Your task to perform on an android device: change alarm snooze length Image 0: 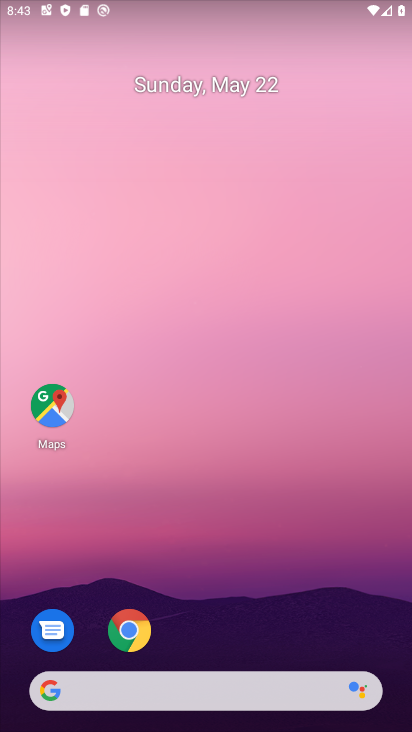
Step 0: drag from (253, 627) to (265, 216)
Your task to perform on an android device: change alarm snooze length Image 1: 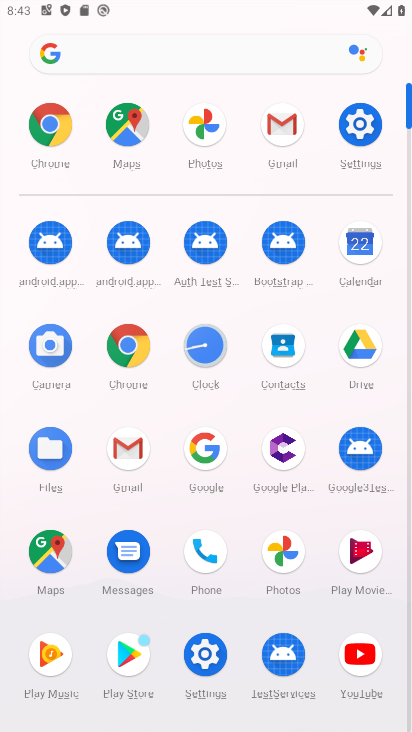
Step 1: click (375, 153)
Your task to perform on an android device: change alarm snooze length Image 2: 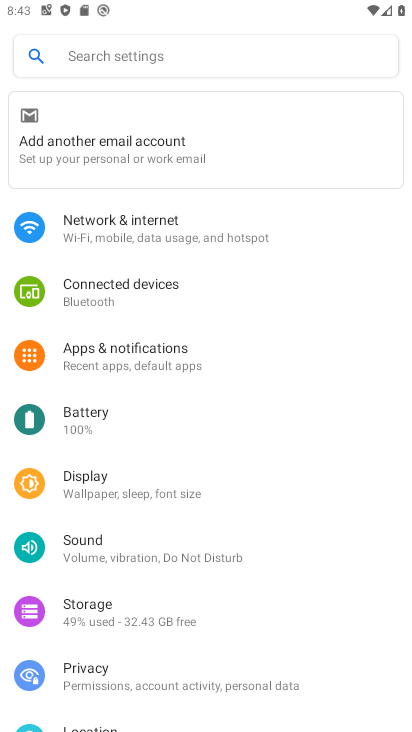
Step 2: press home button
Your task to perform on an android device: change alarm snooze length Image 3: 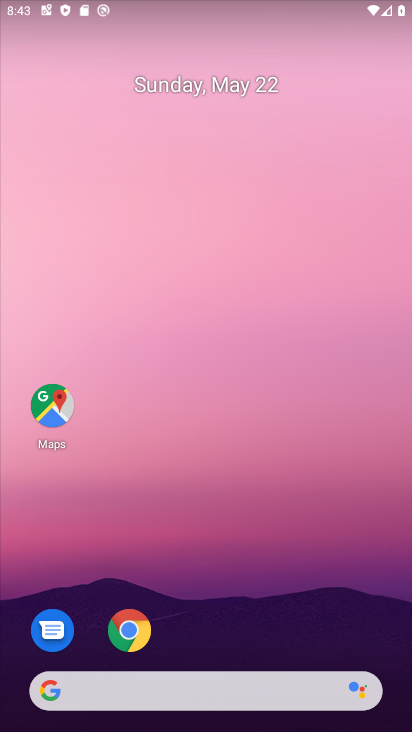
Step 3: drag from (227, 656) to (230, 80)
Your task to perform on an android device: change alarm snooze length Image 4: 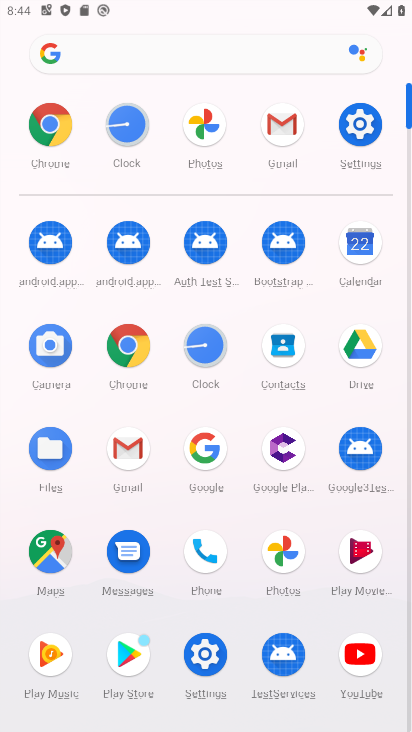
Step 4: click (213, 368)
Your task to perform on an android device: change alarm snooze length Image 5: 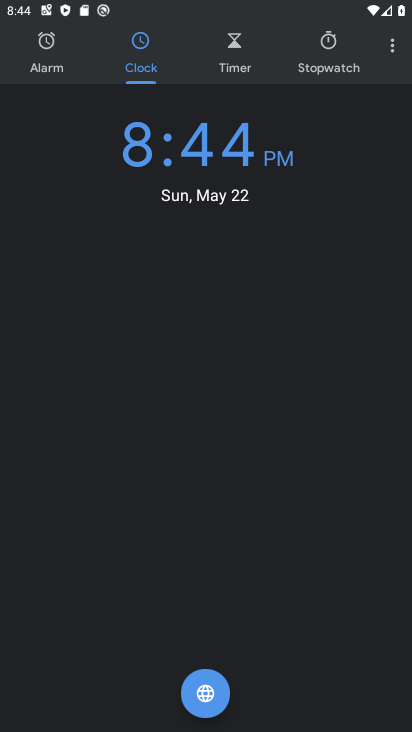
Step 5: click (391, 43)
Your task to perform on an android device: change alarm snooze length Image 6: 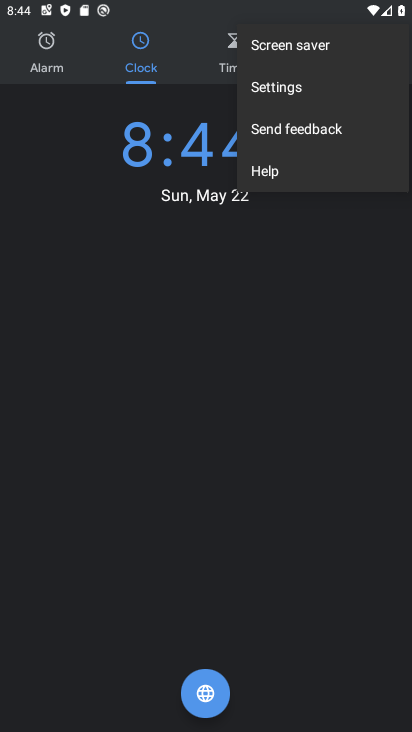
Step 6: click (300, 97)
Your task to perform on an android device: change alarm snooze length Image 7: 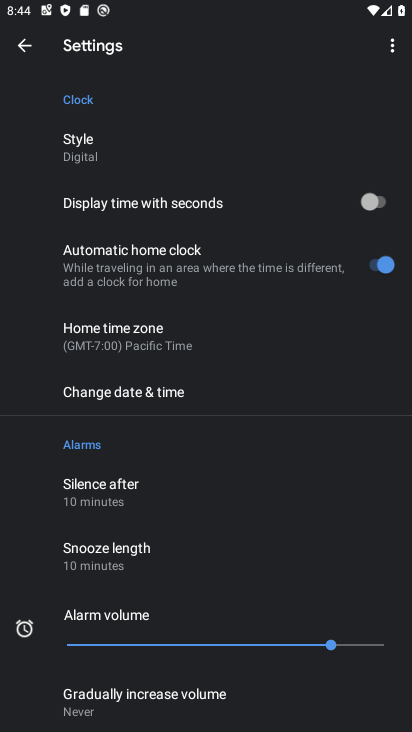
Step 7: drag from (163, 517) to (200, 269)
Your task to perform on an android device: change alarm snooze length Image 8: 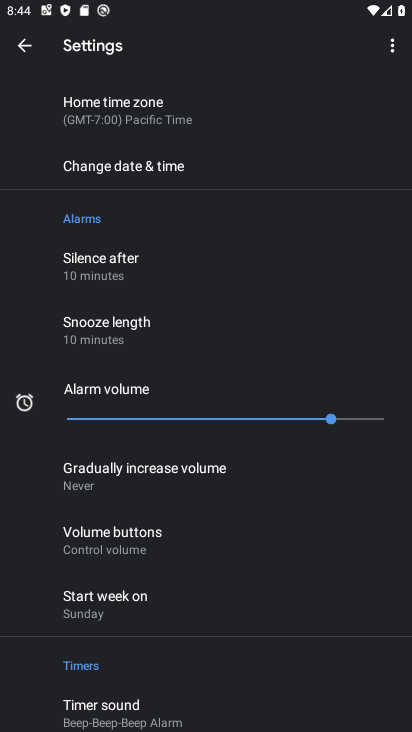
Step 8: drag from (136, 637) to (153, 537)
Your task to perform on an android device: change alarm snooze length Image 9: 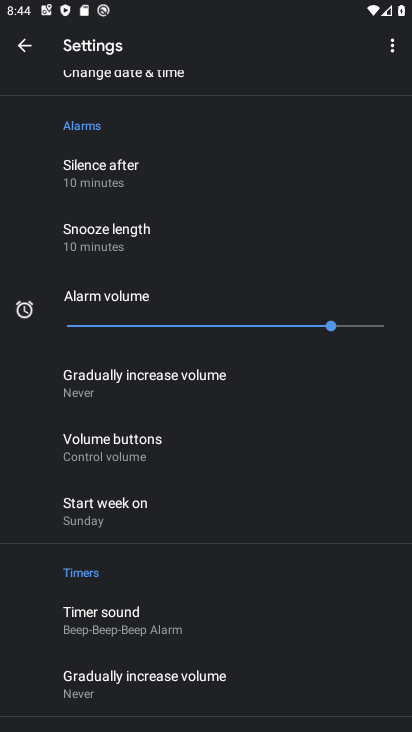
Step 9: click (165, 254)
Your task to perform on an android device: change alarm snooze length Image 10: 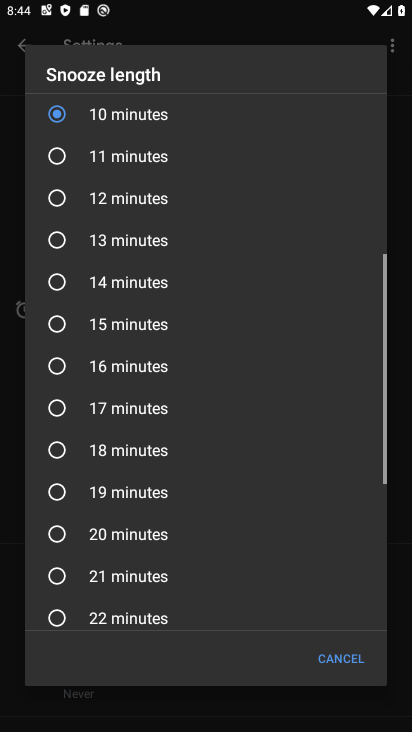
Step 10: click (135, 223)
Your task to perform on an android device: change alarm snooze length Image 11: 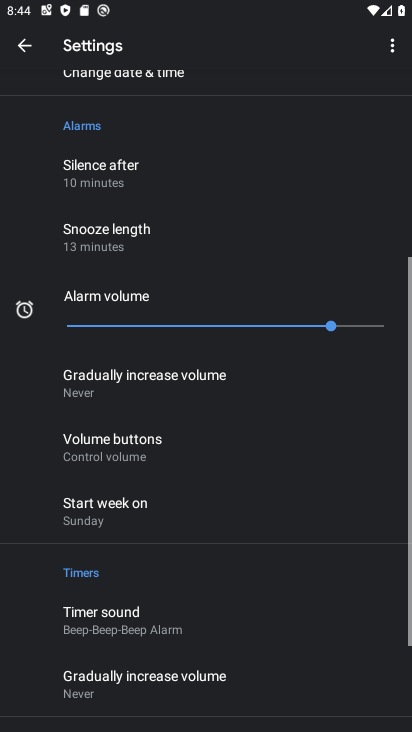
Step 11: task complete